Your task to perform on an android device: change the clock display to show seconds Image 0: 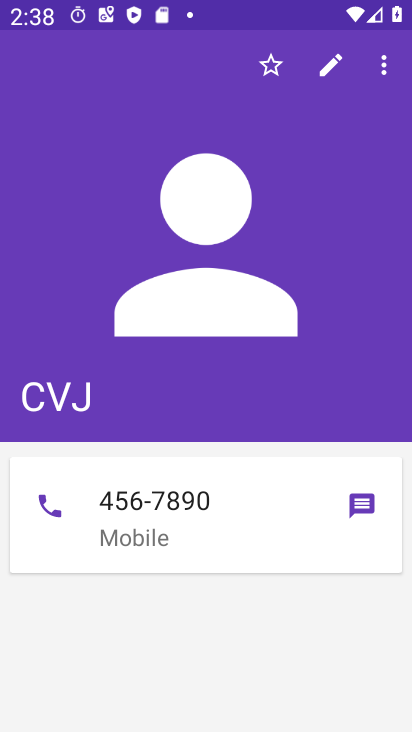
Step 0: press back button
Your task to perform on an android device: change the clock display to show seconds Image 1: 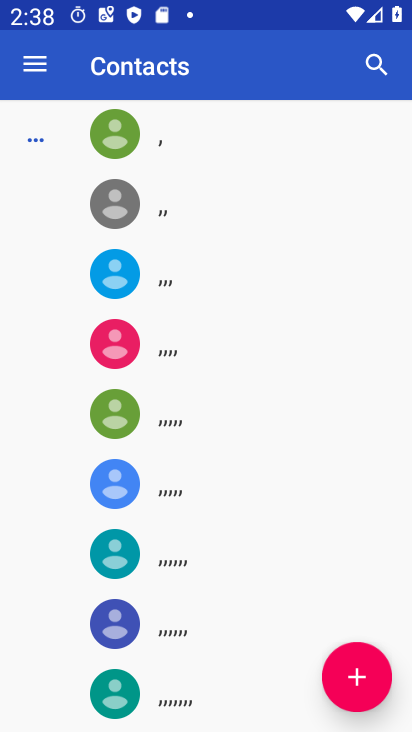
Step 1: press back button
Your task to perform on an android device: change the clock display to show seconds Image 2: 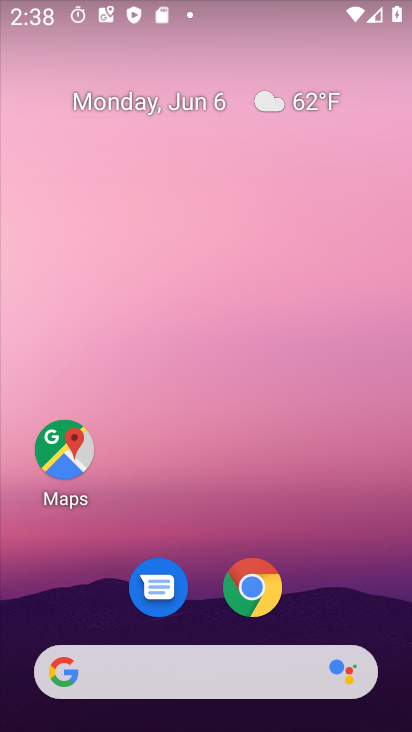
Step 2: drag from (260, 284) to (214, 50)
Your task to perform on an android device: change the clock display to show seconds Image 3: 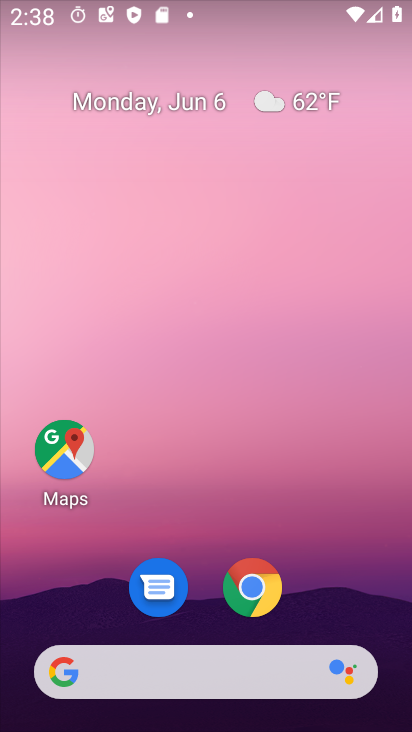
Step 3: drag from (309, 531) to (232, 130)
Your task to perform on an android device: change the clock display to show seconds Image 4: 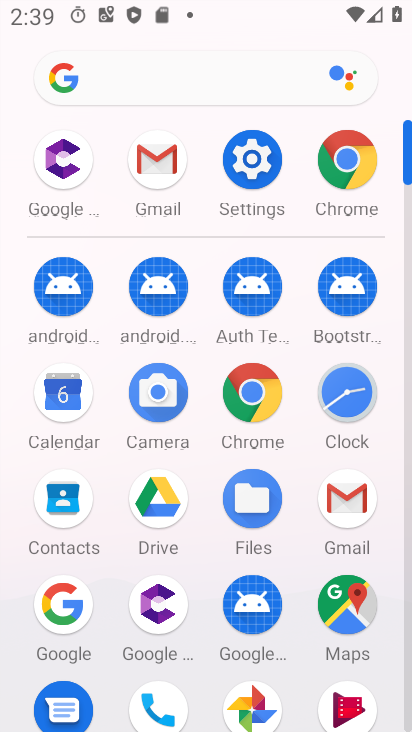
Step 4: click (353, 393)
Your task to perform on an android device: change the clock display to show seconds Image 5: 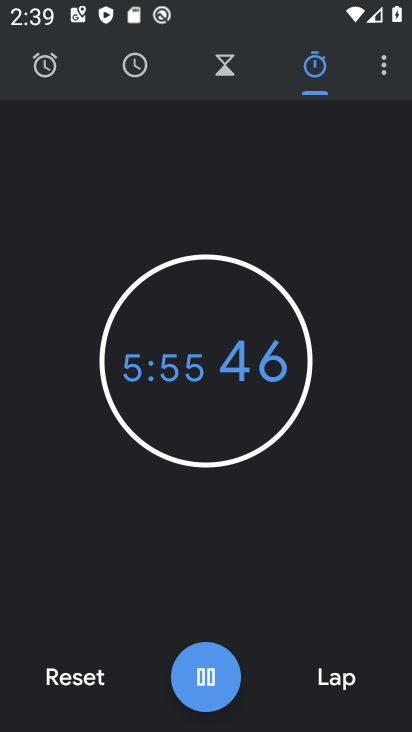
Step 5: drag from (378, 71) to (274, 122)
Your task to perform on an android device: change the clock display to show seconds Image 6: 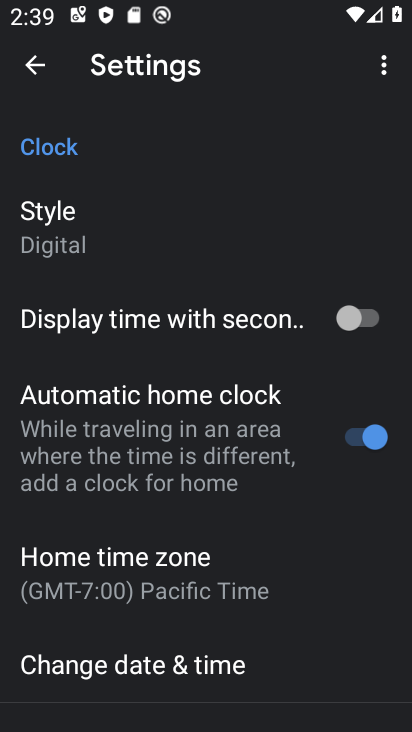
Step 6: click (365, 310)
Your task to perform on an android device: change the clock display to show seconds Image 7: 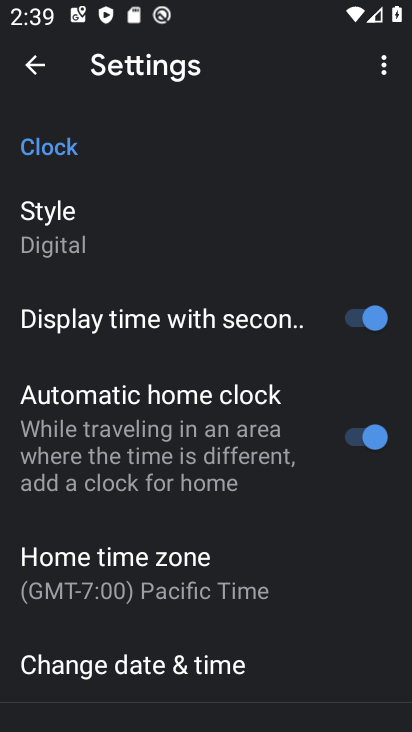
Step 7: task complete